Your task to perform on an android device: Go to Reddit.com Image 0: 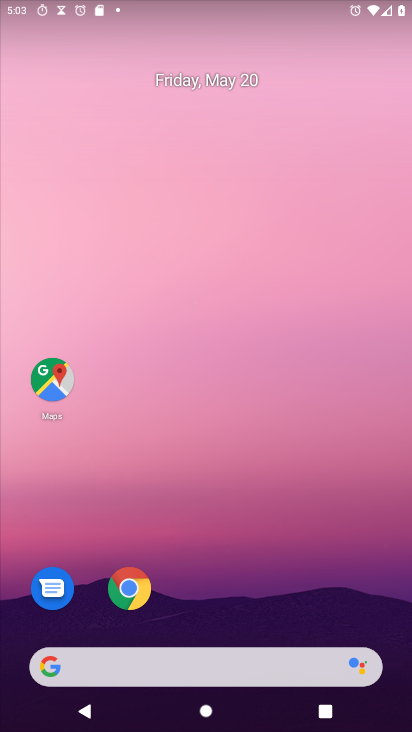
Step 0: drag from (200, 612) to (182, 144)
Your task to perform on an android device: Go to Reddit.com Image 1: 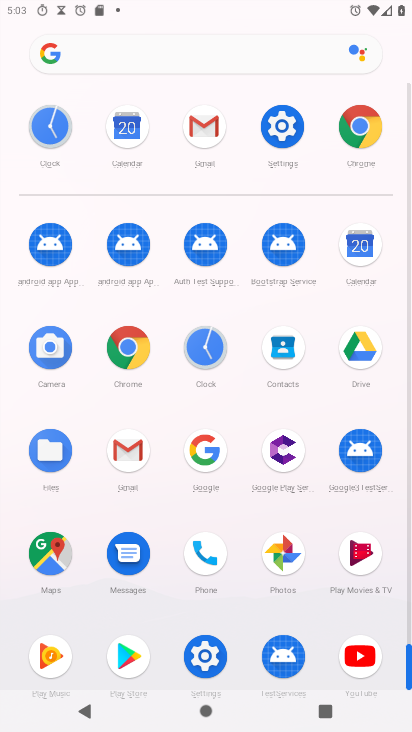
Step 1: click (124, 354)
Your task to perform on an android device: Go to Reddit.com Image 2: 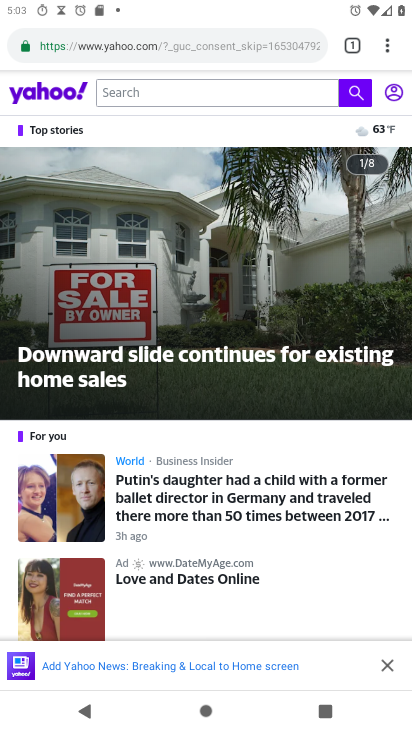
Step 2: click (193, 39)
Your task to perform on an android device: Go to Reddit.com Image 3: 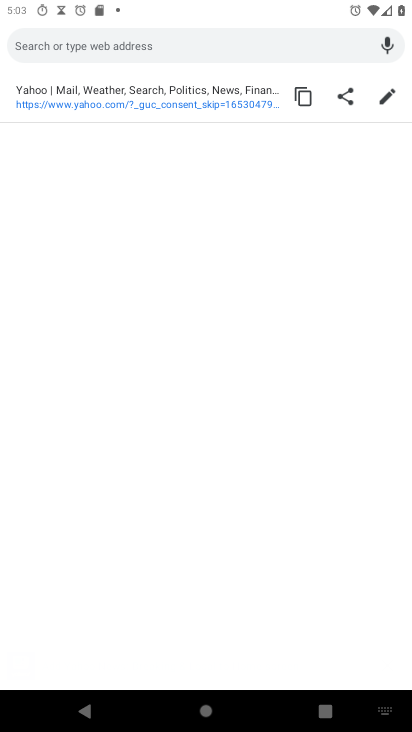
Step 3: type " Reddit.com"
Your task to perform on an android device: Go to Reddit.com Image 4: 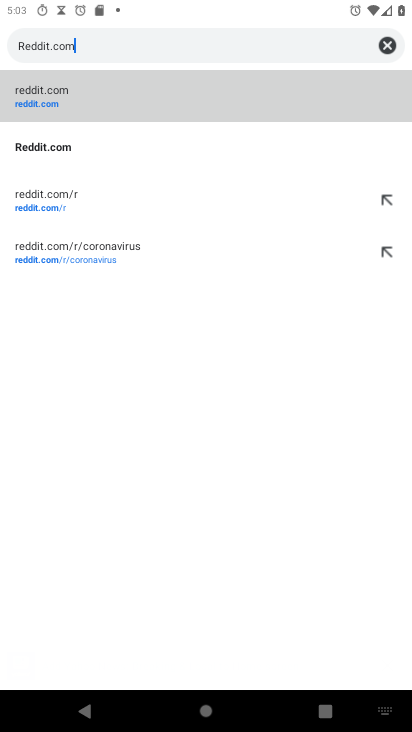
Step 4: click (37, 104)
Your task to perform on an android device: Go to Reddit.com Image 5: 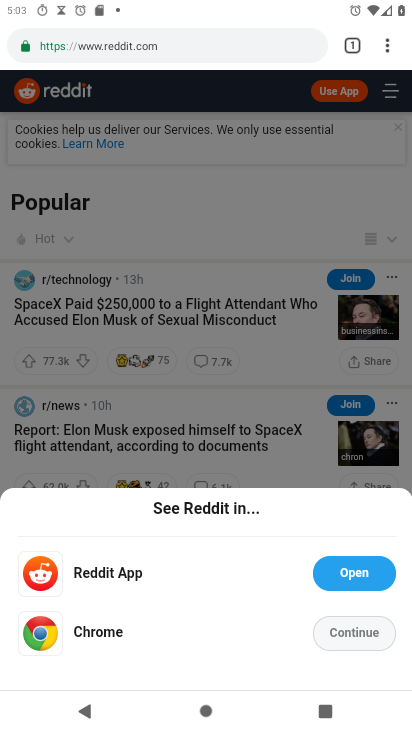
Step 5: task complete